Your task to perform on an android device: clear all cookies in the chrome app Image 0: 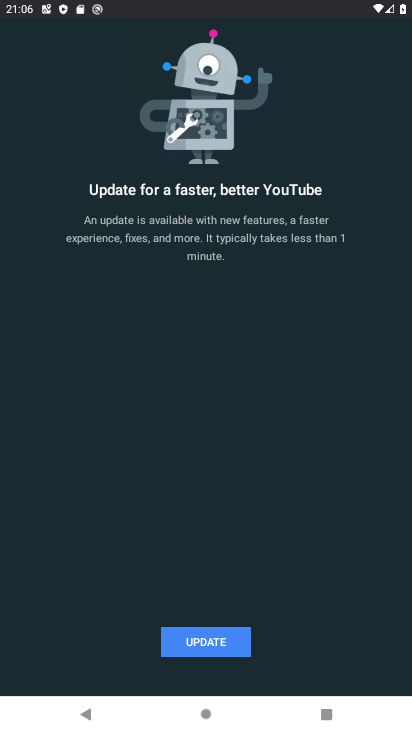
Step 0: press home button
Your task to perform on an android device: clear all cookies in the chrome app Image 1: 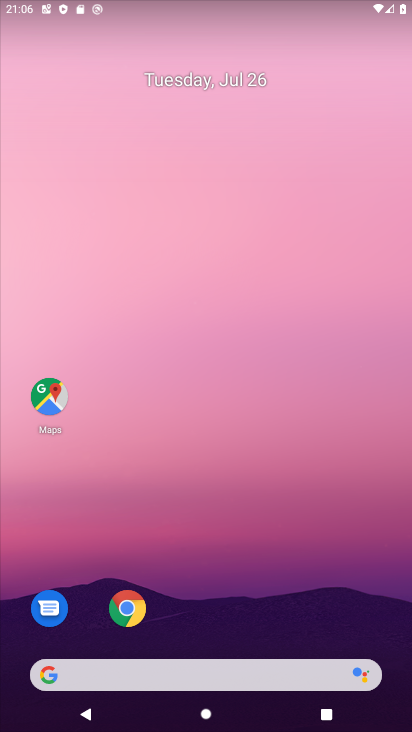
Step 1: click (128, 614)
Your task to perform on an android device: clear all cookies in the chrome app Image 2: 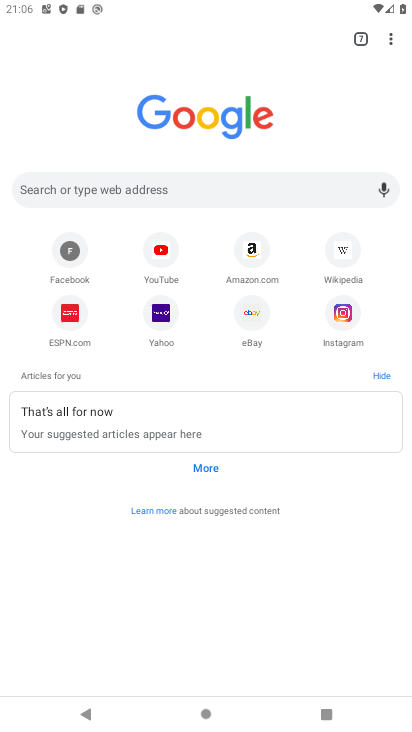
Step 2: click (397, 38)
Your task to perform on an android device: clear all cookies in the chrome app Image 3: 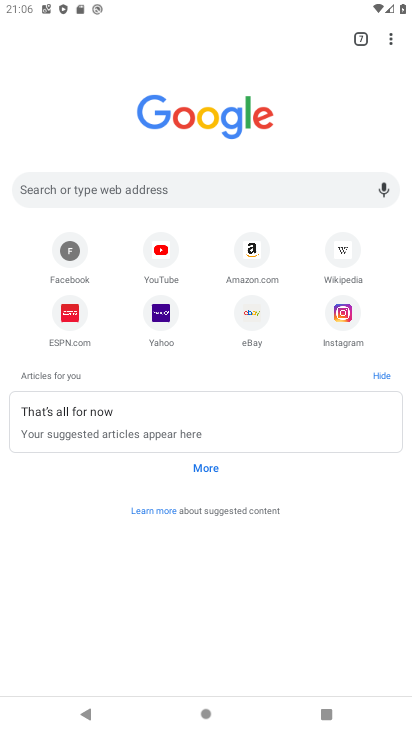
Step 3: click (395, 40)
Your task to perform on an android device: clear all cookies in the chrome app Image 4: 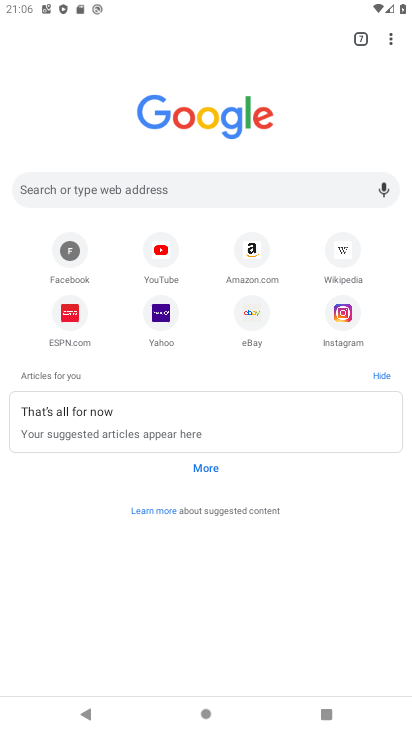
Step 4: click (394, 46)
Your task to perform on an android device: clear all cookies in the chrome app Image 5: 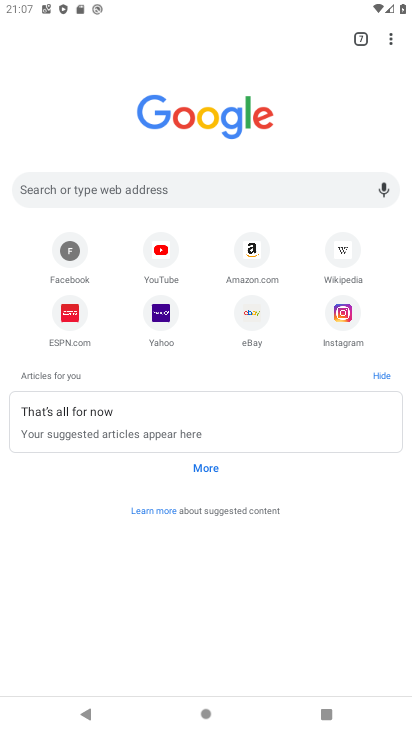
Step 5: click (392, 29)
Your task to perform on an android device: clear all cookies in the chrome app Image 6: 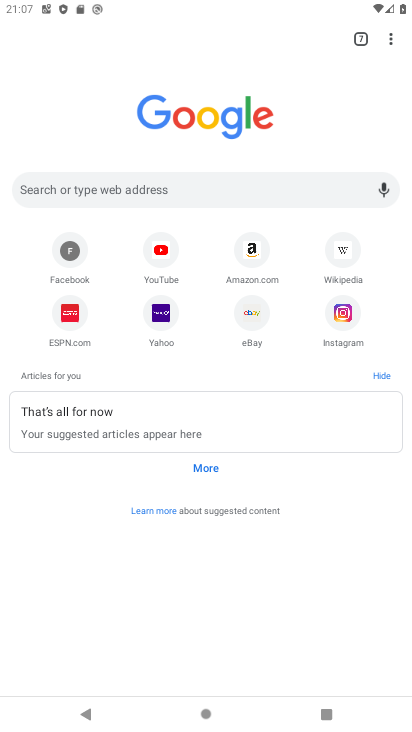
Step 6: task complete